Your task to perform on an android device: Do I have any events today? Image 0: 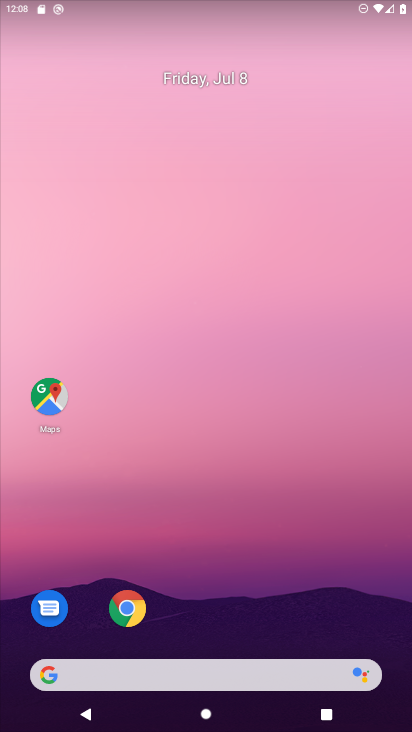
Step 0: drag from (238, 718) to (236, 528)
Your task to perform on an android device: Do I have any events today? Image 1: 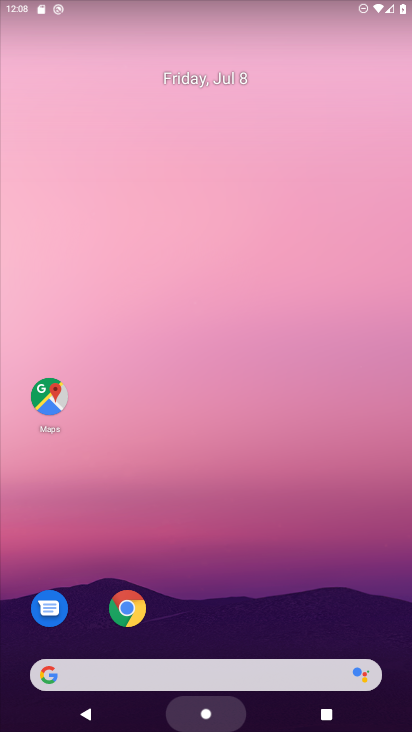
Step 1: drag from (231, 139) to (252, 17)
Your task to perform on an android device: Do I have any events today? Image 2: 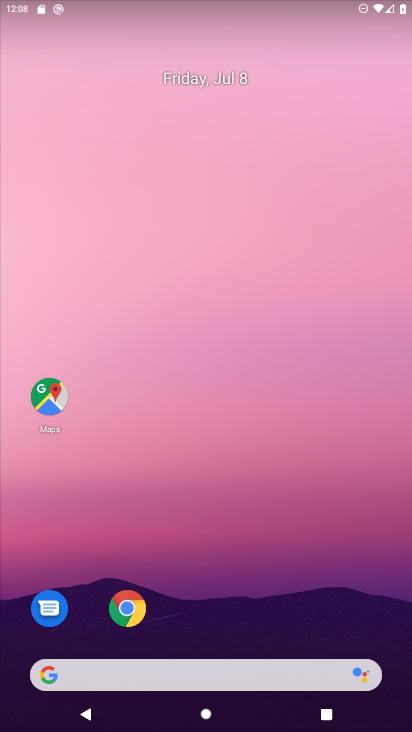
Step 2: drag from (243, 730) to (227, 607)
Your task to perform on an android device: Do I have any events today? Image 3: 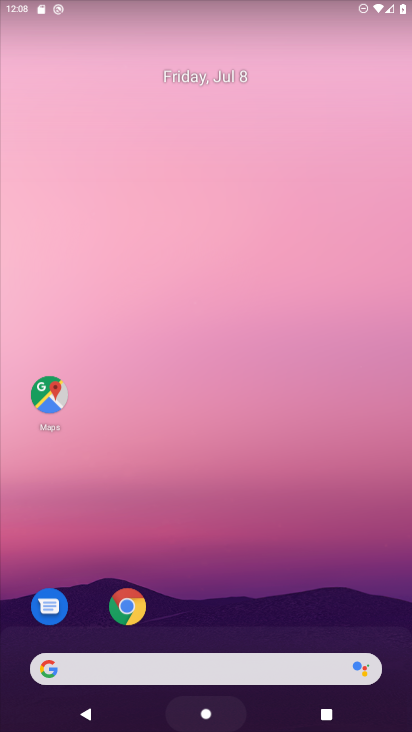
Step 3: click (219, 59)
Your task to perform on an android device: Do I have any events today? Image 4: 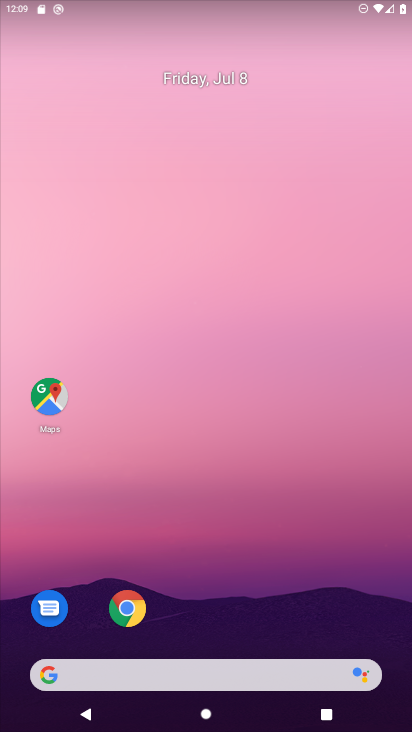
Step 4: drag from (246, 657) to (245, 20)
Your task to perform on an android device: Do I have any events today? Image 5: 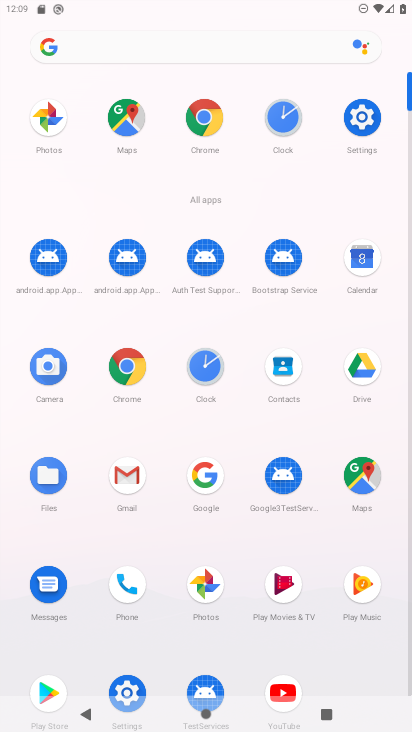
Step 5: click (359, 258)
Your task to perform on an android device: Do I have any events today? Image 6: 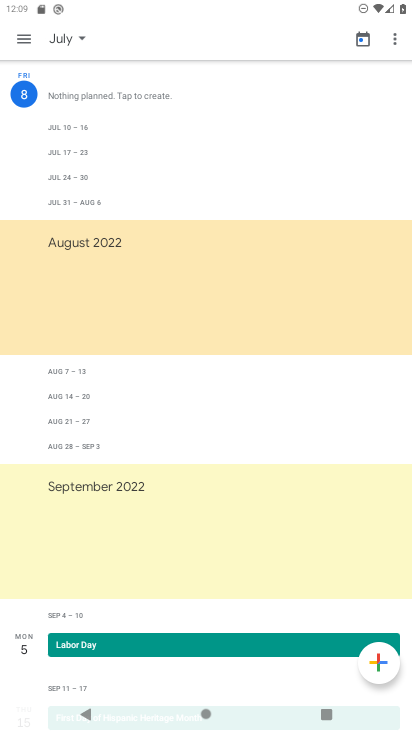
Step 6: click (22, 37)
Your task to perform on an android device: Do I have any events today? Image 7: 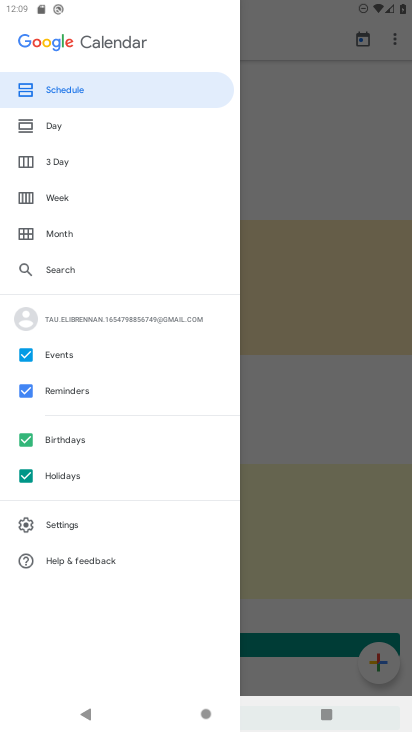
Step 7: click (21, 474)
Your task to perform on an android device: Do I have any events today? Image 8: 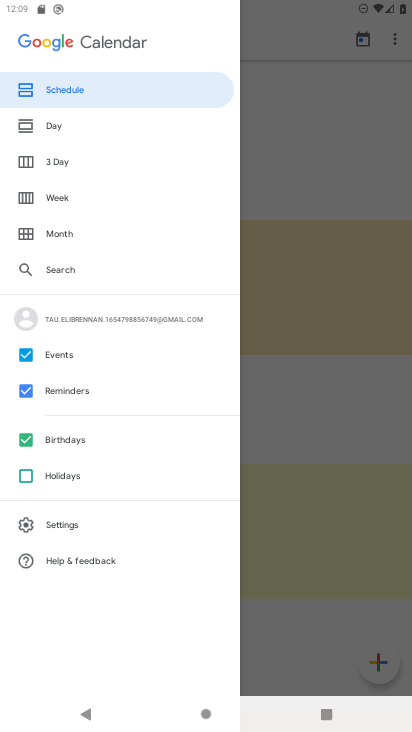
Step 8: click (26, 435)
Your task to perform on an android device: Do I have any events today? Image 9: 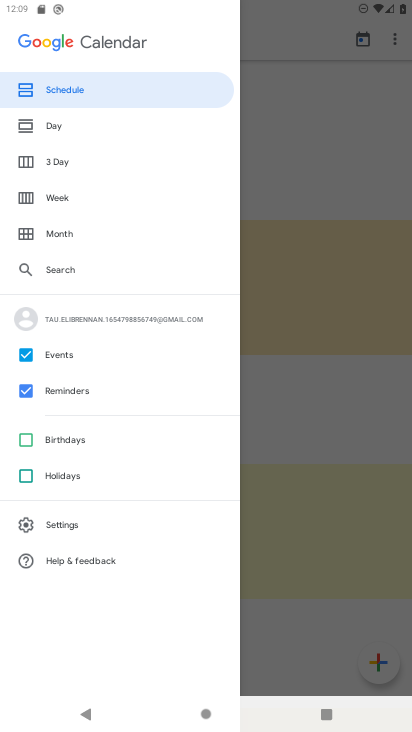
Step 9: click (28, 384)
Your task to perform on an android device: Do I have any events today? Image 10: 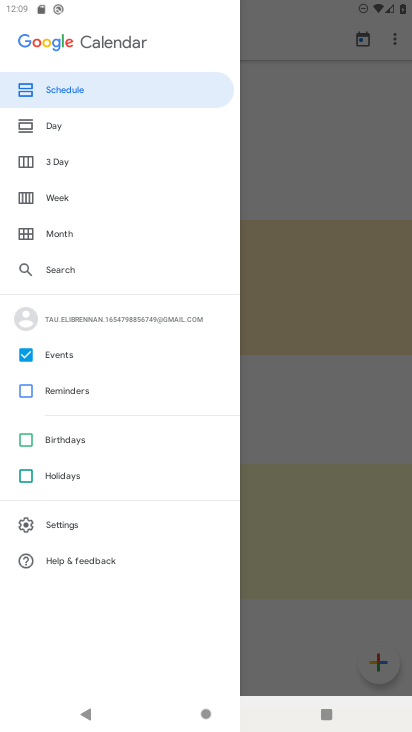
Step 10: click (59, 124)
Your task to perform on an android device: Do I have any events today? Image 11: 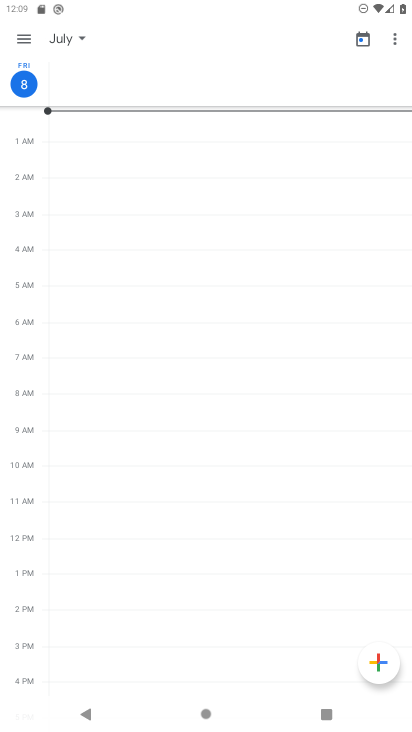
Step 11: task complete